Your task to perform on an android device: check battery use Image 0: 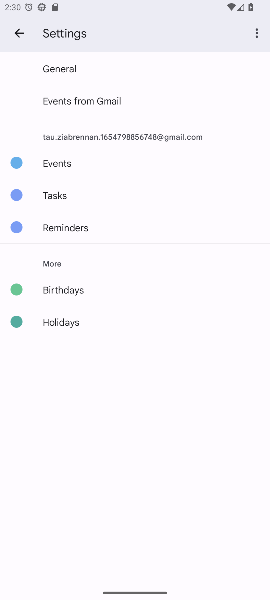
Step 0: press home button
Your task to perform on an android device: check battery use Image 1: 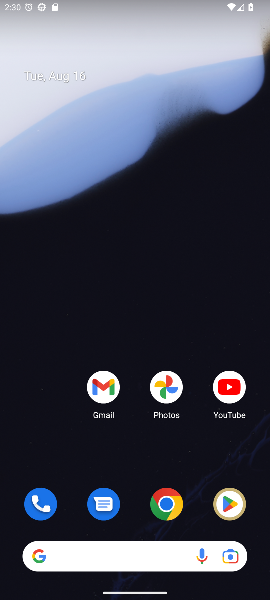
Step 1: drag from (143, 488) to (142, 35)
Your task to perform on an android device: check battery use Image 2: 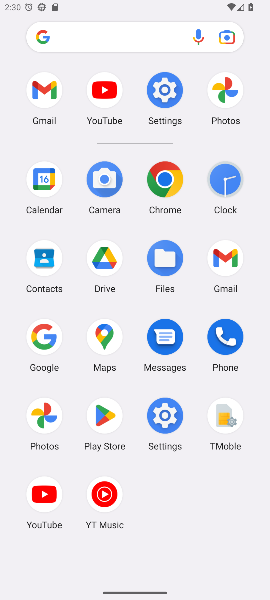
Step 2: click (163, 88)
Your task to perform on an android device: check battery use Image 3: 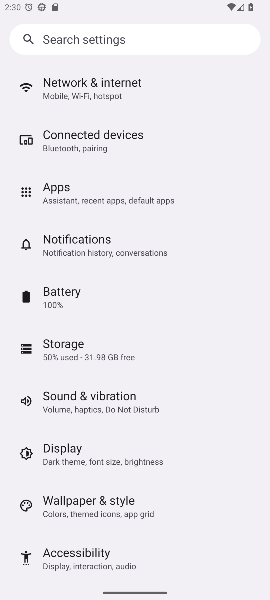
Step 3: click (64, 293)
Your task to perform on an android device: check battery use Image 4: 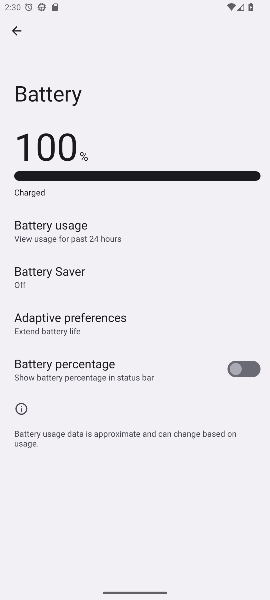
Step 4: task complete